Your task to perform on an android device: refresh tabs in the chrome app Image 0: 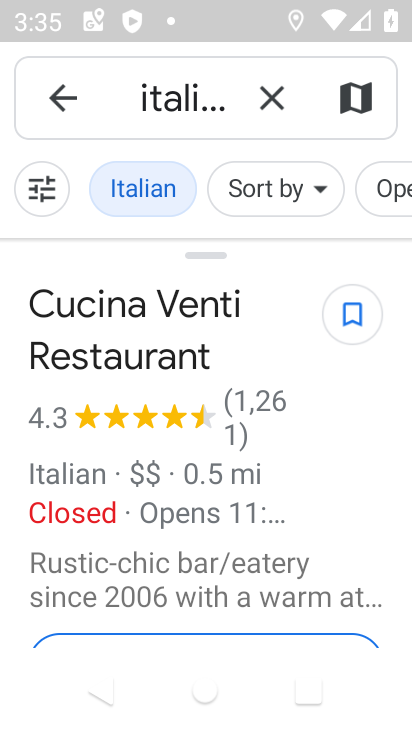
Step 0: press home button
Your task to perform on an android device: refresh tabs in the chrome app Image 1: 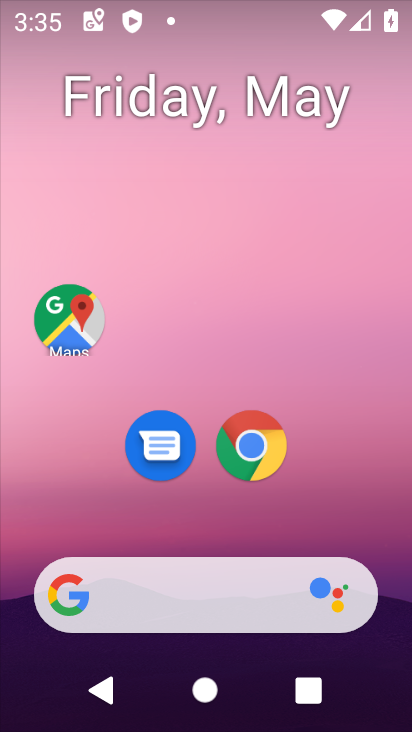
Step 1: click (266, 454)
Your task to perform on an android device: refresh tabs in the chrome app Image 2: 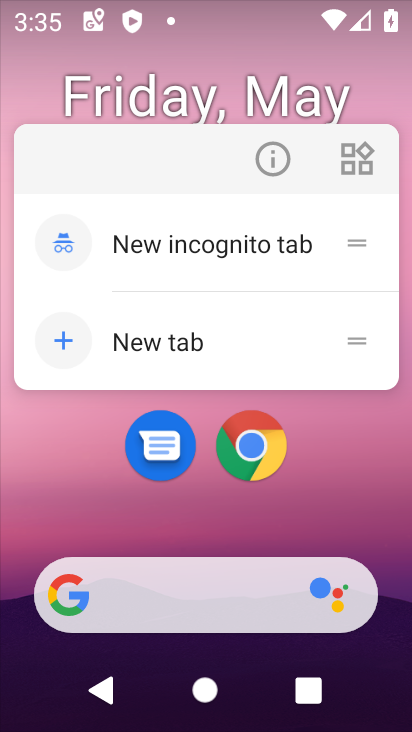
Step 2: click (266, 454)
Your task to perform on an android device: refresh tabs in the chrome app Image 3: 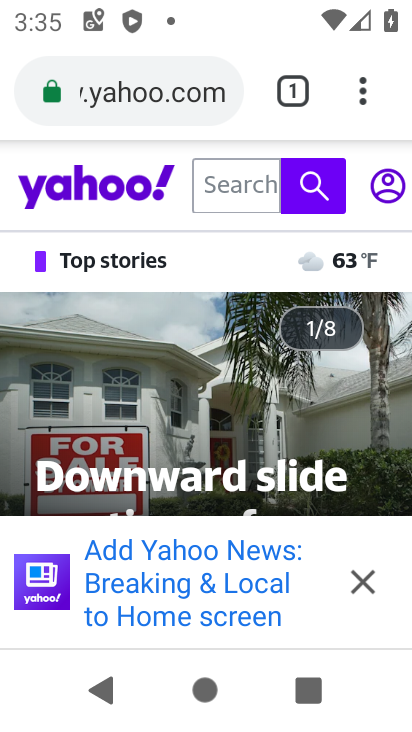
Step 3: click (362, 88)
Your task to perform on an android device: refresh tabs in the chrome app Image 4: 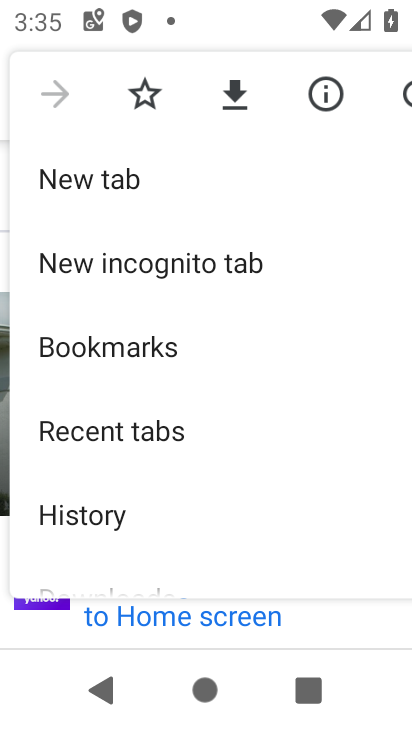
Step 4: drag from (388, 96) to (174, 86)
Your task to perform on an android device: refresh tabs in the chrome app Image 5: 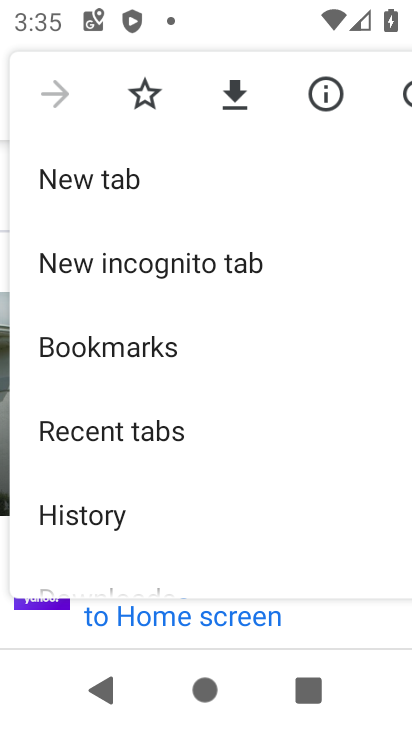
Step 5: click (396, 90)
Your task to perform on an android device: refresh tabs in the chrome app Image 6: 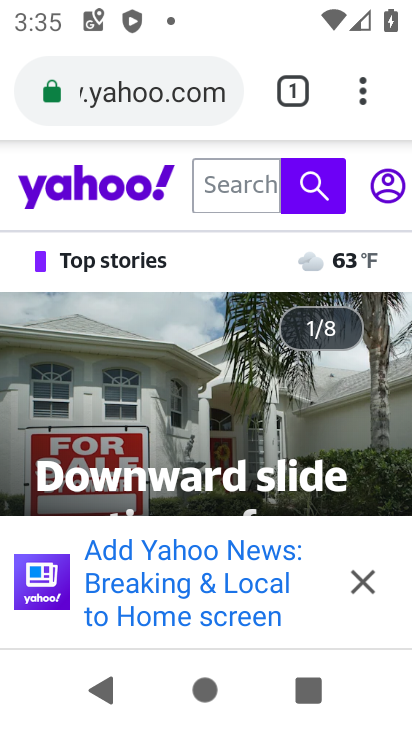
Step 6: task complete